Your task to perform on an android device: find photos in the google photos app Image 0: 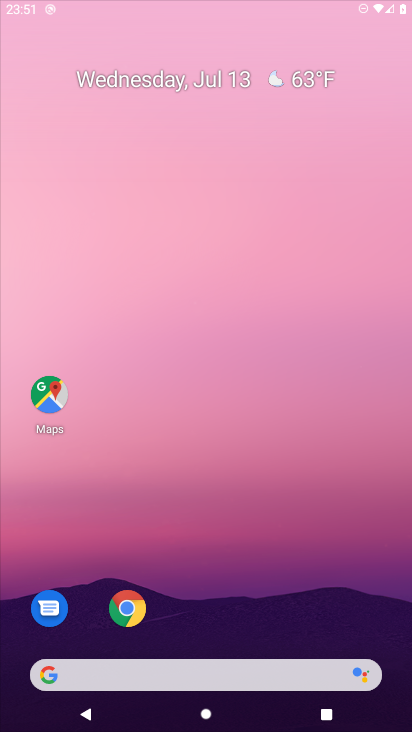
Step 0: press home button
Your task to perform on an android device: find photos in the google photos app Image 1: 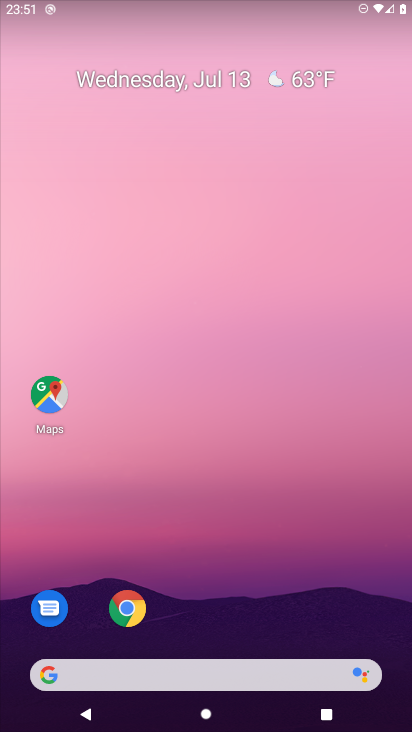
Step 1: drag from (229, 569) to (367, 129)
Your task to perform on an android device: find photos in the google photos app Image 2: 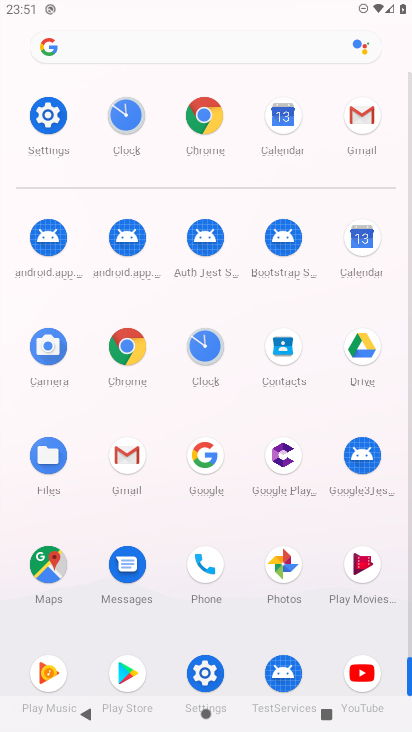
Step 2: click (284, 565)
Your task to perform on an android device: find photos in the google photos app Image 3: 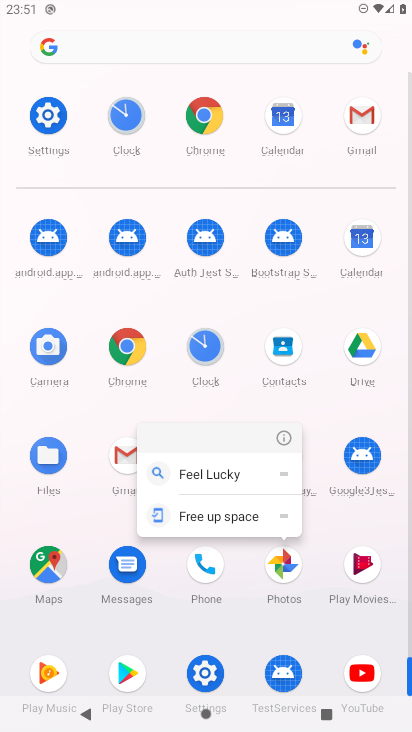
Step 3: click (284, 565)
Your task to perform on an android device: find photos in the google photos app Image 4: 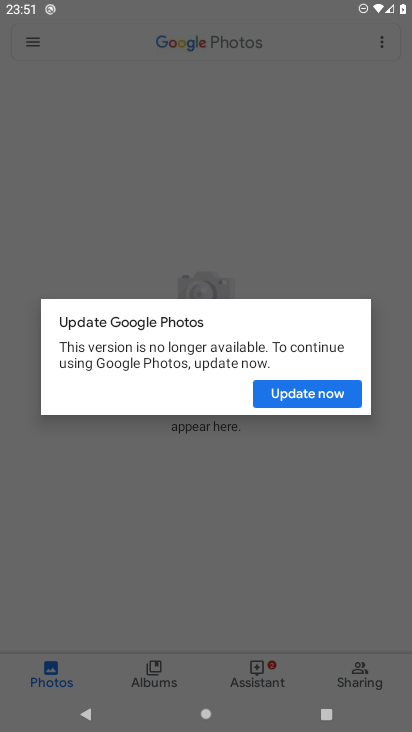
Step 4: click (314, 396)
Your task to perform on an android device: find photos in the google photos app Image 5: 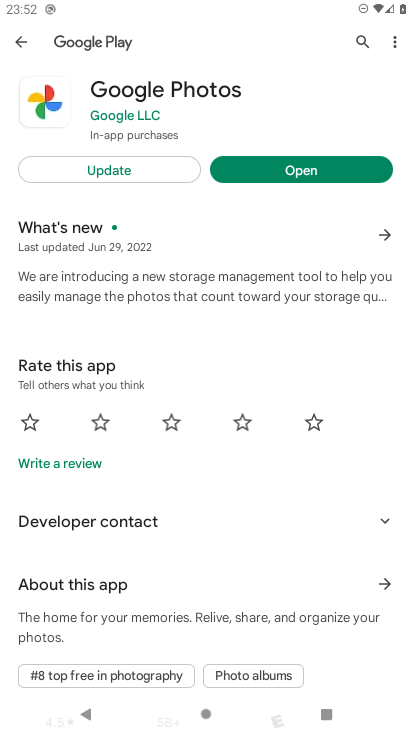
Step 5: click (119, 178)
Your task to perform on an android device: find photos in the google photos app Image 6: 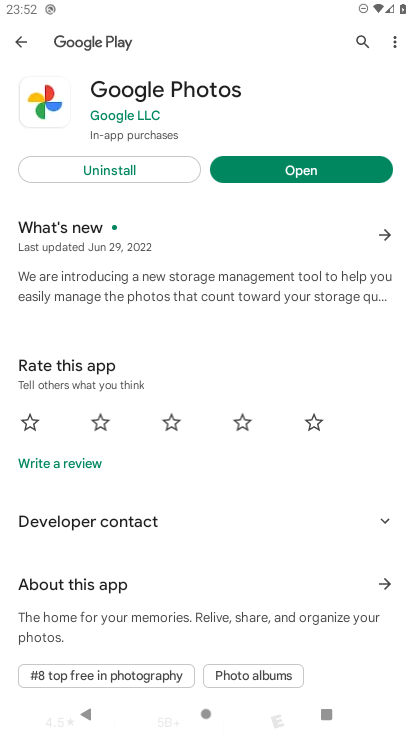
Step 6: click (332, 177)
Your task to perform on an android device: find photos in the google photos app Image 7: 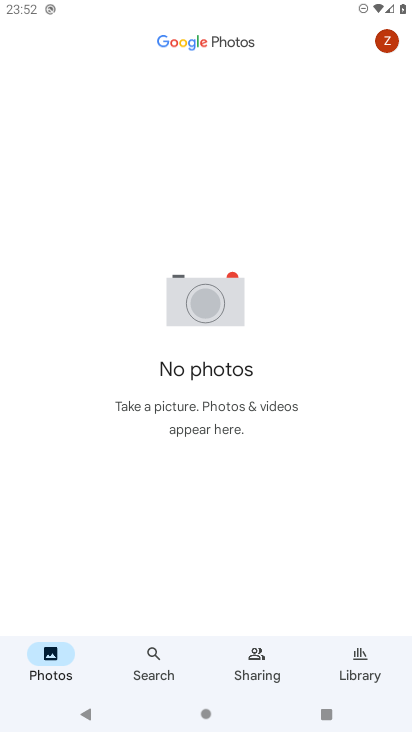
Step 7: task complete